Your task to perform on an android device: Open Yahoo.com Image 0: 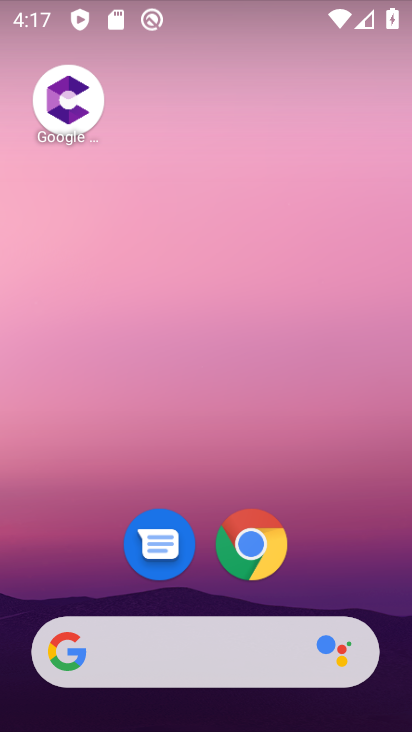
Step 0: click (262, 557)
Your task to perform on an android device: Open Yahoo.com Image 1: 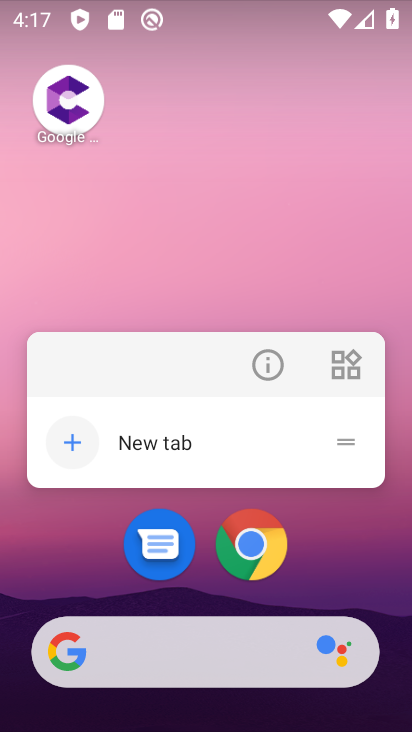
Step 1: click (262, 551)
Your task to perform on an android device: Open Yahoo.com Image 2: 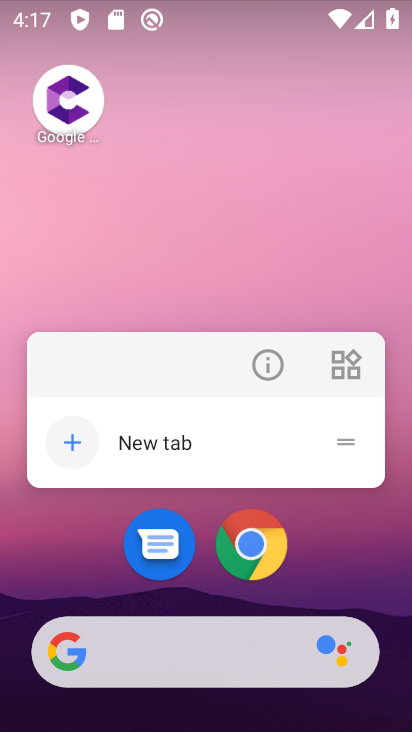
Step 2: click (262, 551)
Your task to perform on an android device: Open Yahoo.com Image 3: 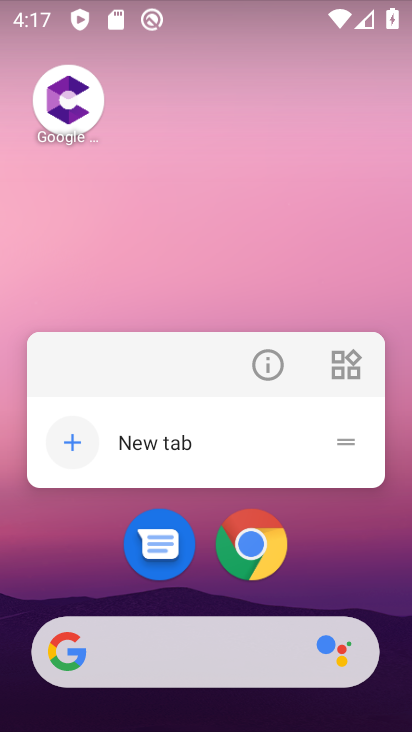
Step 3: click (260, 542)
Your task to perform on an android device: Open Yahoo.com Image 4: 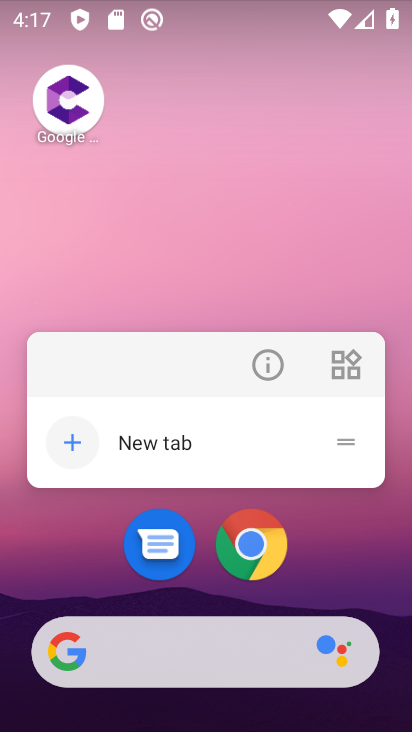
Step 4: click (249, 551)
Your task to perform on an android device: Open Yahoo.com Image 5: 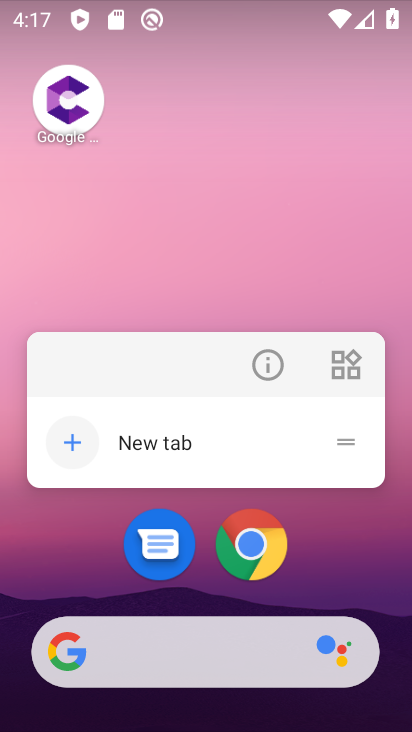
Step 5: click (249, 554)
Your task to perform on an android device: Open Yahoo.com Image 6: 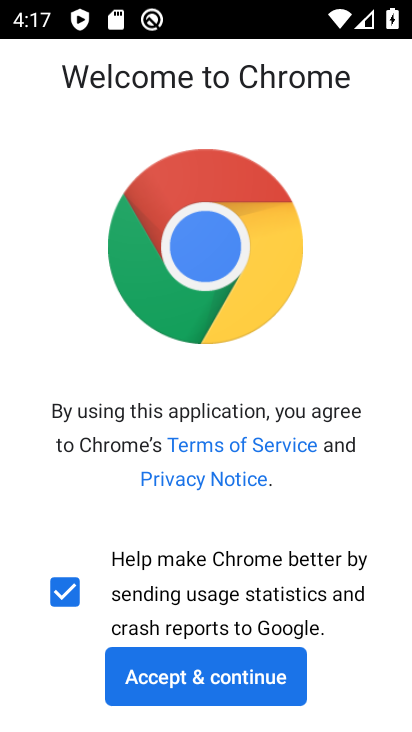
Step 6: click (245, 694)
Your task to perform on an android device: Open Yahoo.com Image 7: 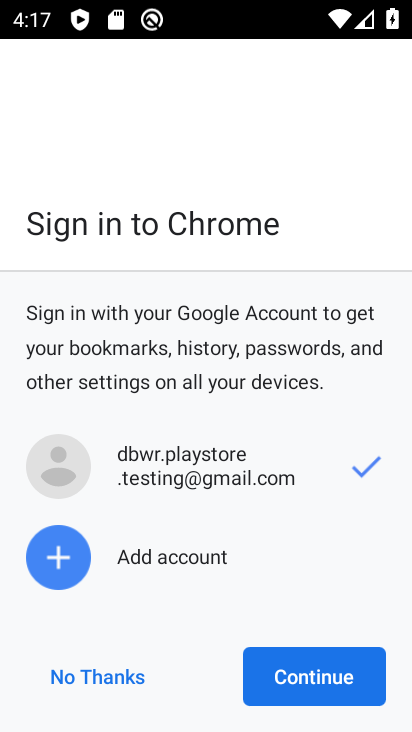
Step 7: click (280, 678)
Your task to perform on an android device: Open Yahoo.com Image 8: 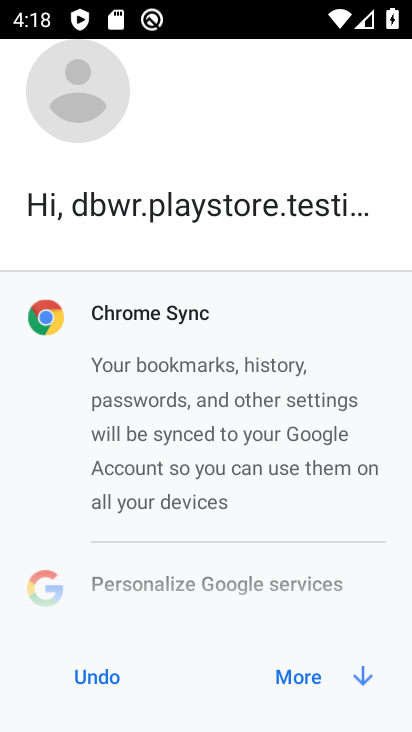
Step 8: click (345, 696)
Your task to perform on an android device: Open Yahoo.com Image 9: 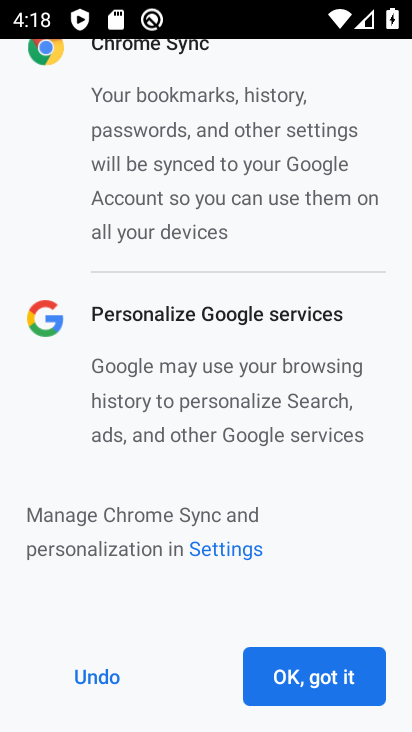
Step 9: click (345, 696)
Your task to perform on an android device: Open Yahoo.com Image 10: 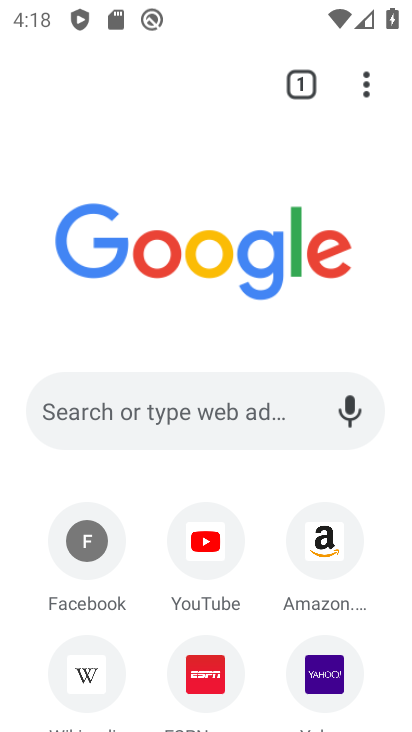
Step 10: drag from (364, 670) to (406, 496)
Your task to perform on an android device: Open Yahoo.com Image 11: 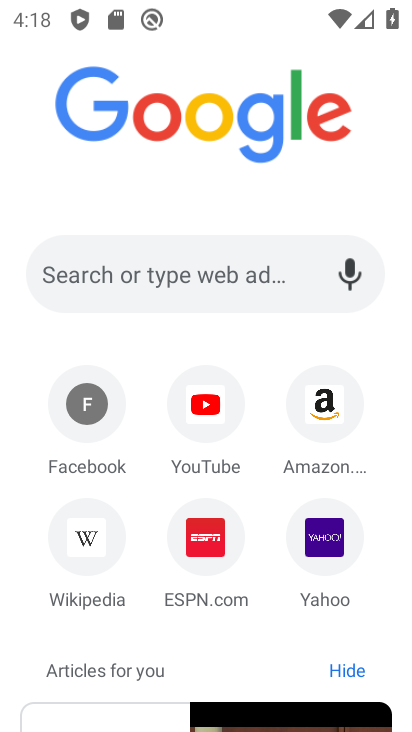
Step 11: click (323, 547)
Your task to perform on an android device: Open Yahoo.com Image 12: 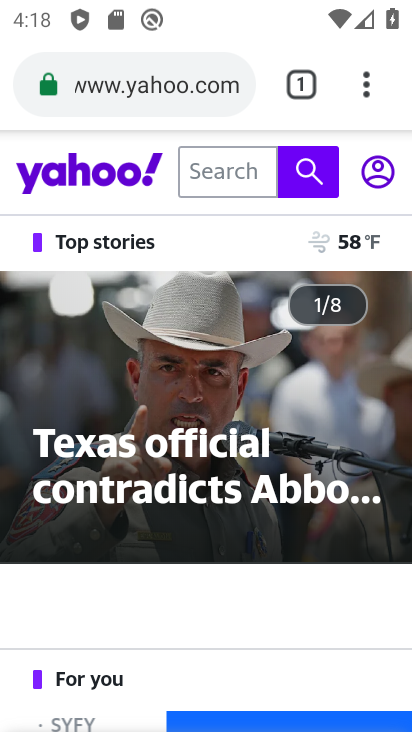
Step 12: task complete